Your task to perform on an android device: Search for usb-c to usb-a on amazon.com, select the first entry, and add it to the cart. Image 0: 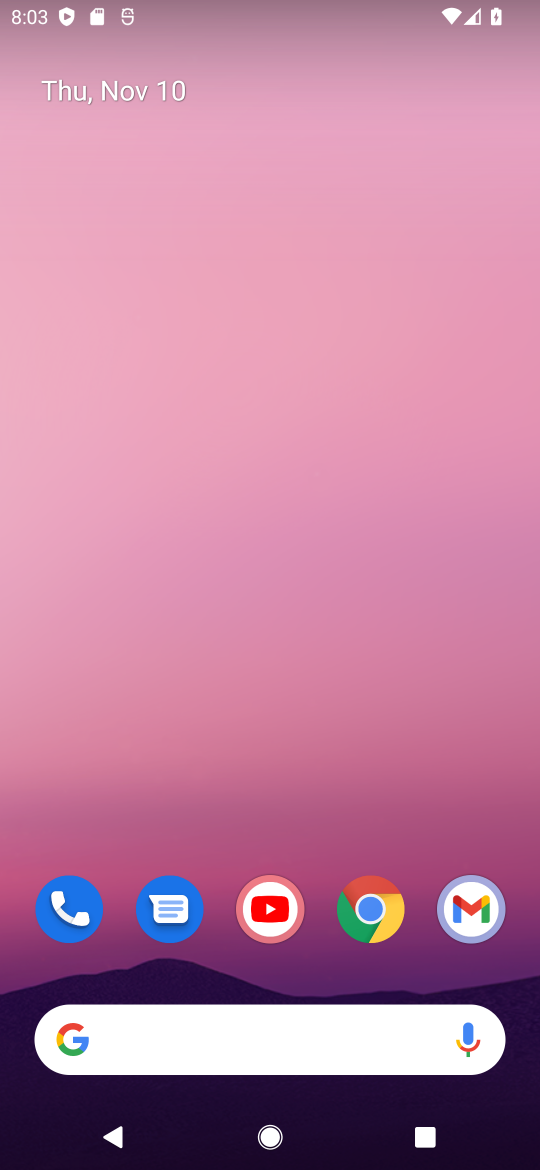
Step 0: drag from (202, 981) to (246, 131)
Your task to perform on an android device: Search for usb-c to usb-a on amazon.com, select the first entry, and add it to the cart. Image 1: 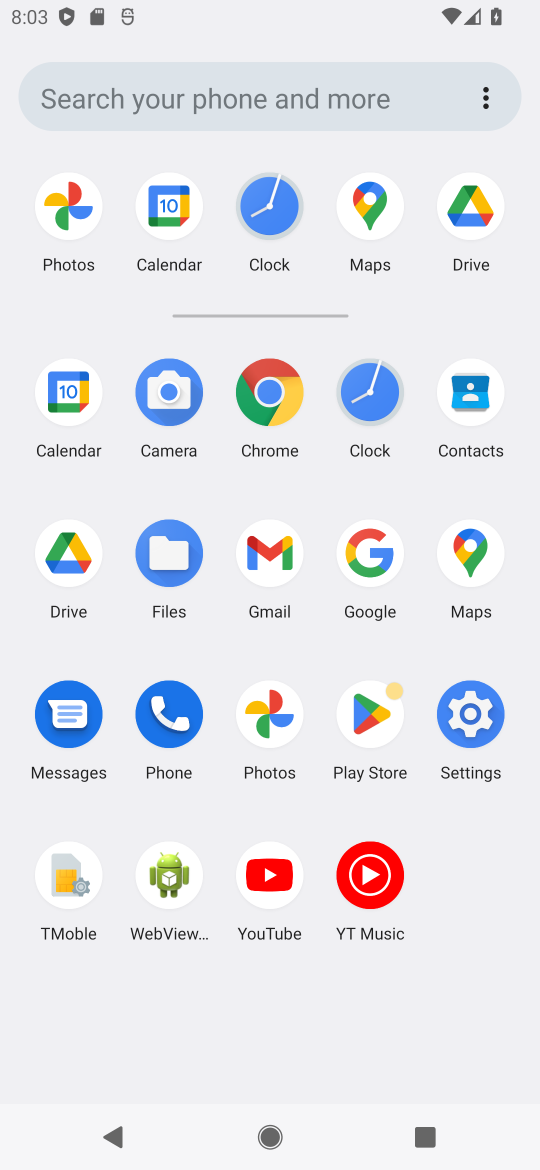
Step 1: click (375, 548)
Your task to perform on an android device: Search for usb-c to usb-a on amazon.com, select the first entry, and add it to the cart. Image 2: 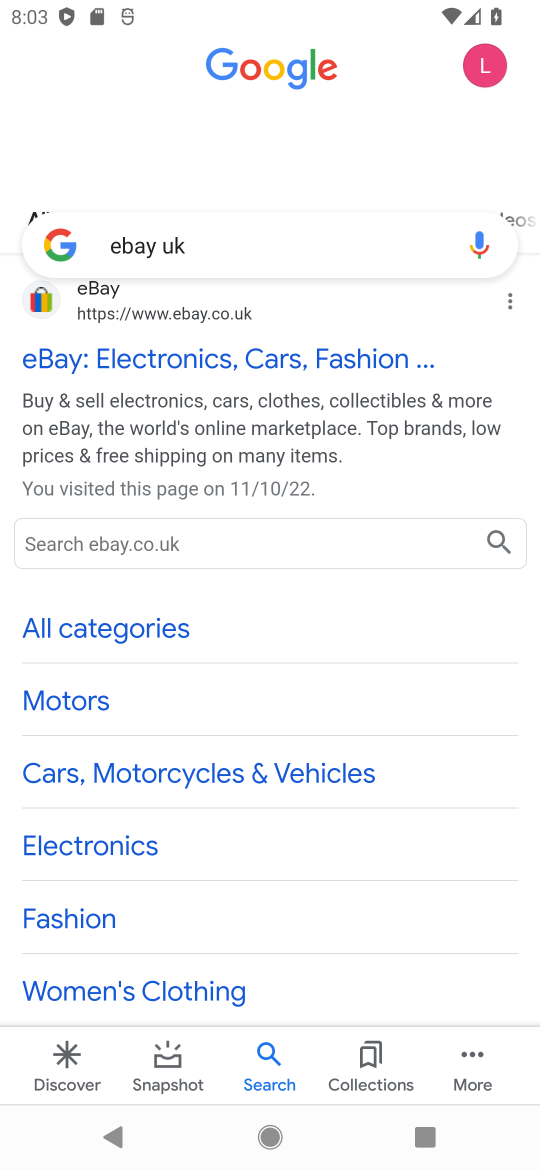
Step 2: click (282, 244)
Your task to perform on an android device: Search for usb-c to usb-a on amazon.com, select the first entry, and add it to the cart. Image 3: 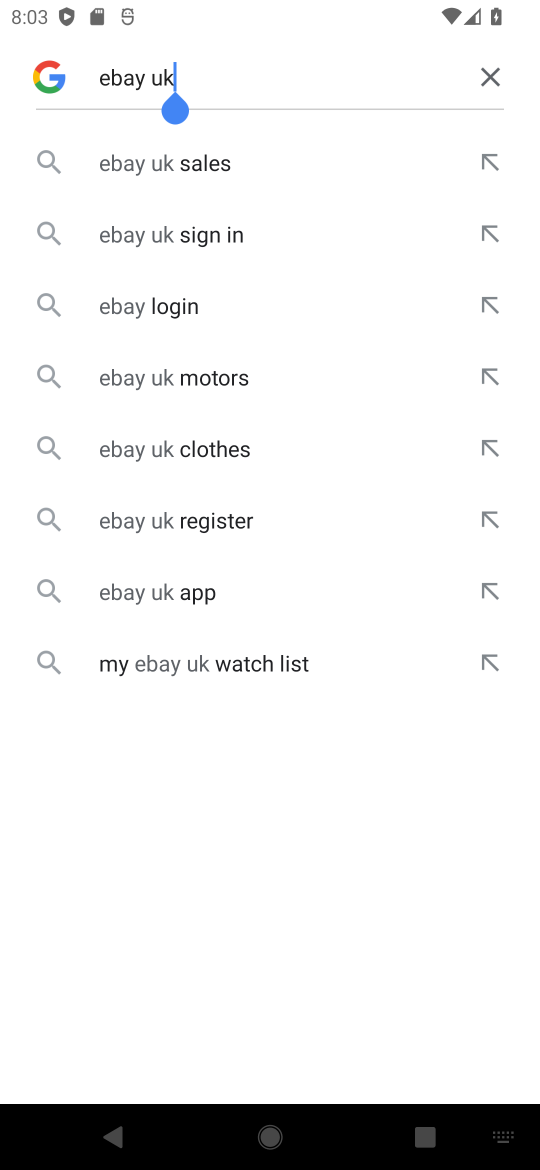
Step 3: click (486, 69)
Your task to perform on an android device: Search for usb-c to usb-a on amazon.com, select the first entry, and add it to the cart. Image 4: 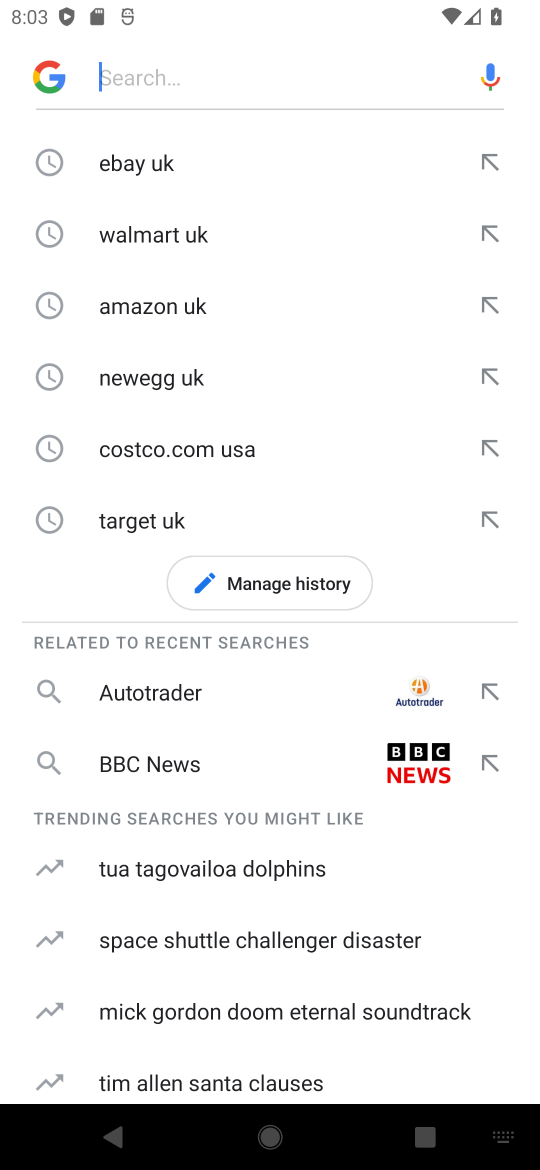
Step 4: click (211, 67)
Your task to perform on an android device: Search for usb-c to usb-a on amazon.com, select the first entry, and add it to the cart. Image 5: 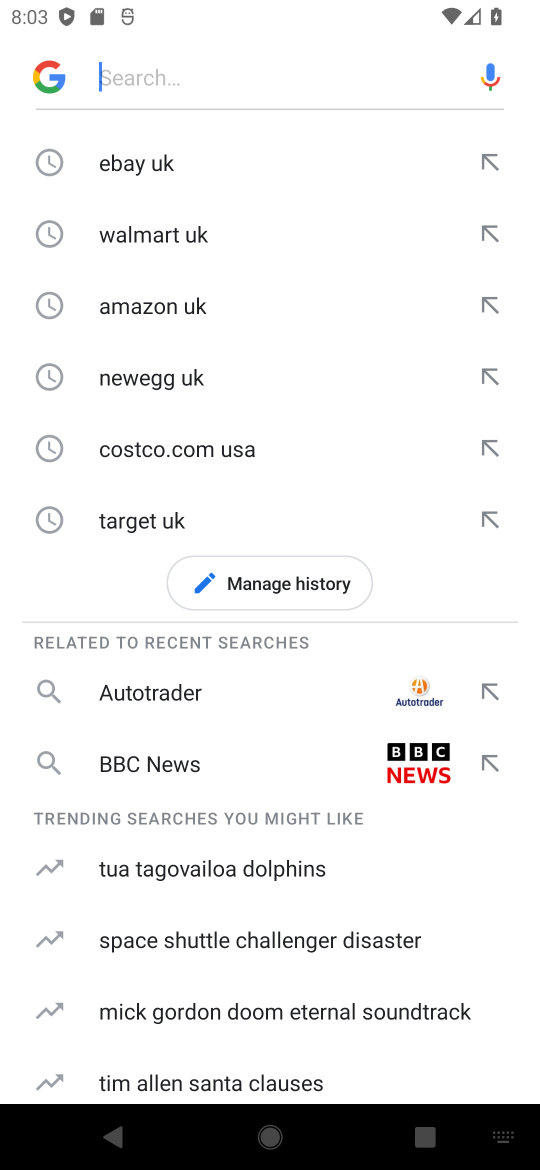
Step 5: type "amazon "
Your task to perform on an android device: Search for usb-c to usb-a on amazon.com, select the first entry, and add it to the cart. Image 6: 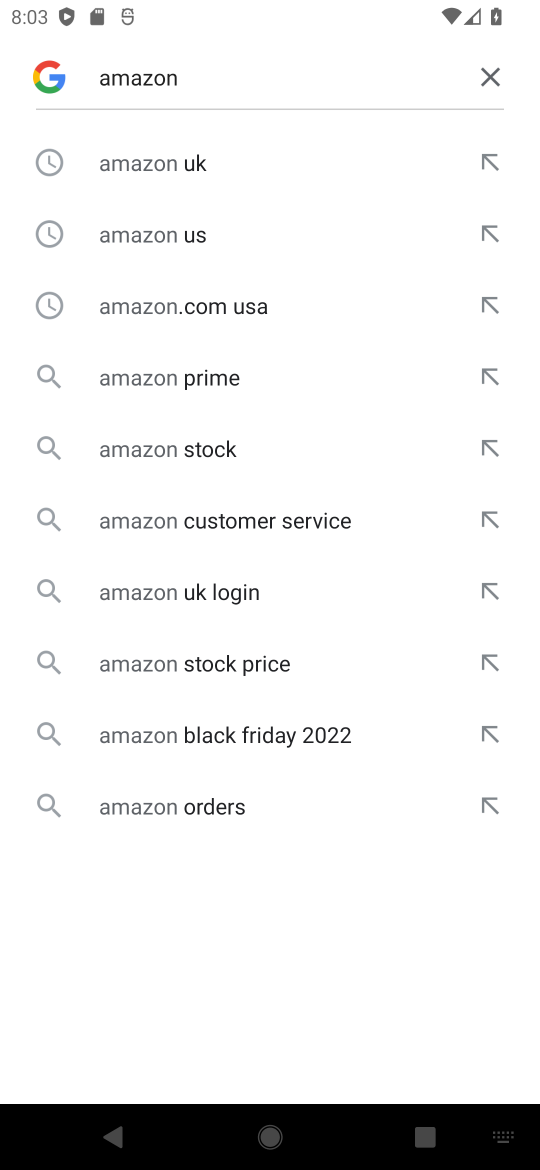
Step 6: click (174, 160)
Your task to perform on an android device: Search for usb-c to usb-a on amazon.com, select the first entry, and add it to the cart. Image 7: 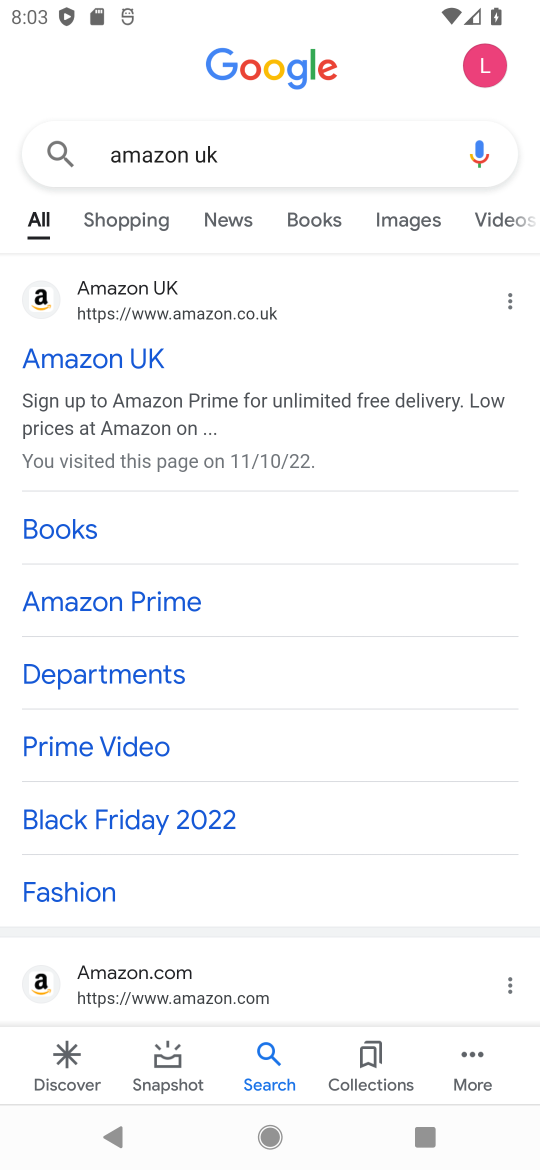
Step 7: click (44, 284)
Your task to perform on an android device: Search for usb-c to usb-a on amazon.com, select the first entry, and add it to the cart. Image 8: 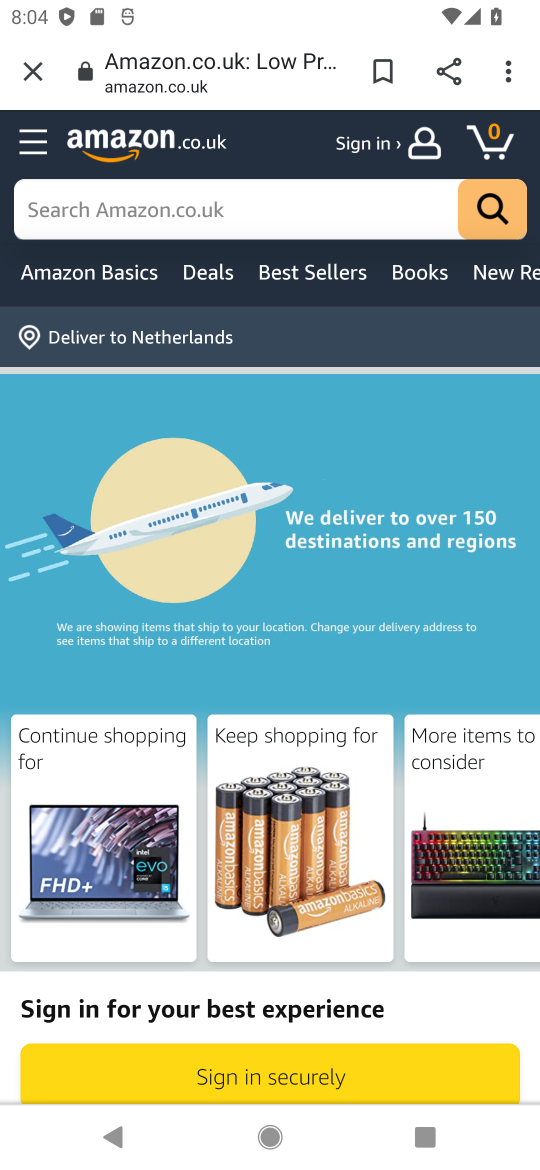
Step 8: click (335, 207)
Your task to perform on an android device: Search for usb-c to usb-a on amazon.com, select the first entry, and add it to the cart. Image 9: 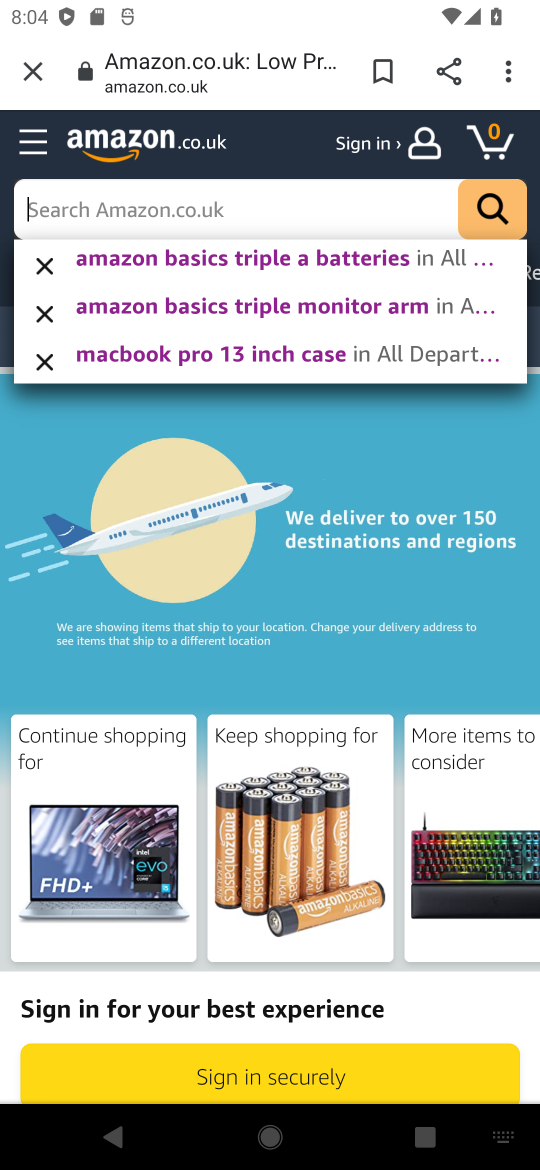
Step 9: type "usb-c to usb-a  "
Your task to perform on an android device: Search for usb-c to usb-a on amazon.com, select the first entry, and add it to the cart. Image 10: 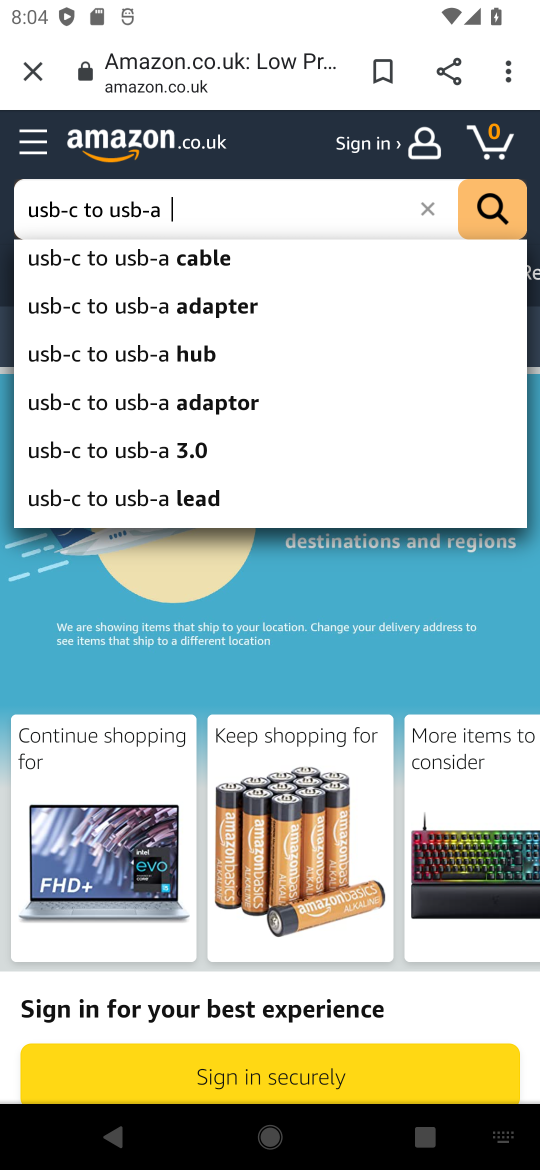
Step 10: click (162, 262)
Your task to perform on an android device: Search for usb-c to usb-a on amazon.com, select the first entry, and add it to the cart. Image 11: 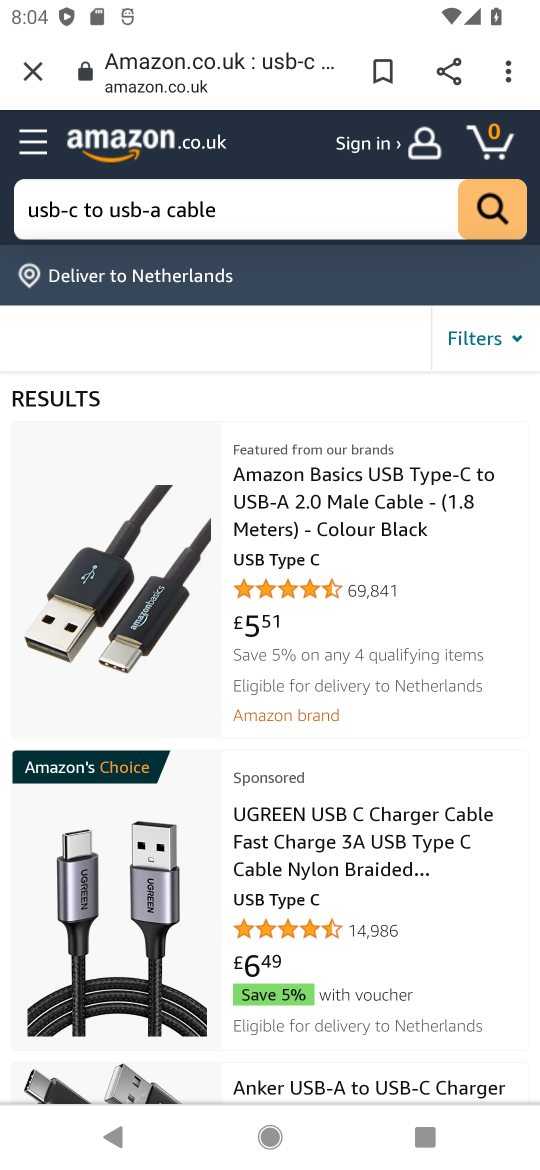
Step 11: click (357, 487)
Your task to perform on an android device: Search for usb-c to usb-a on amazon.com, select the first entry, and add it to the cart. Image 12: 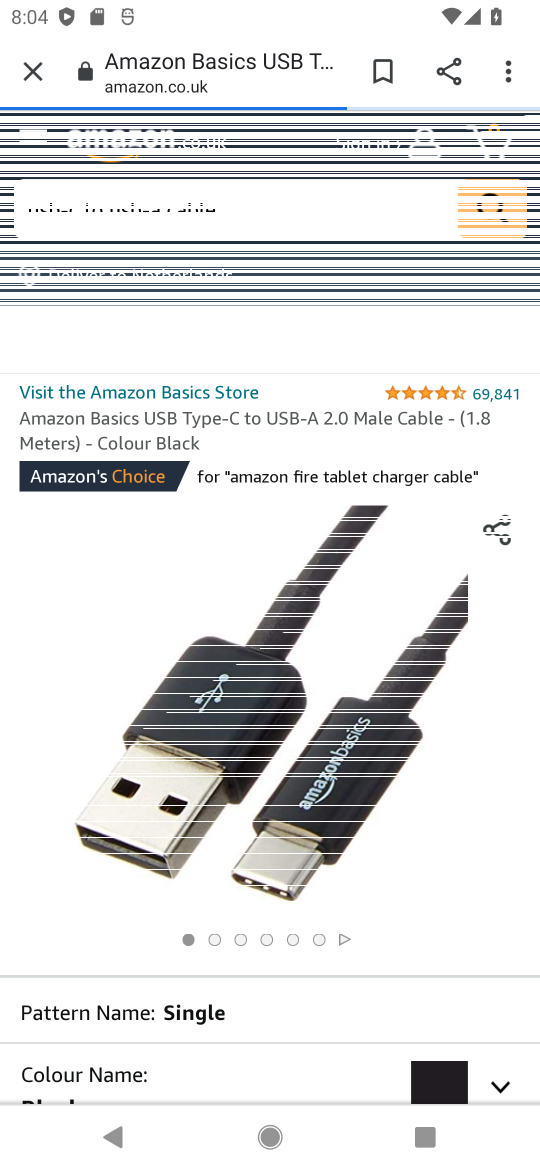
Step 12: drag from (267, 975) to (279, 292)
Your task to perform on an android device: Search for usb-c to usb-a on amazon.com, select the first entry, and add it to the cart. Image 13: 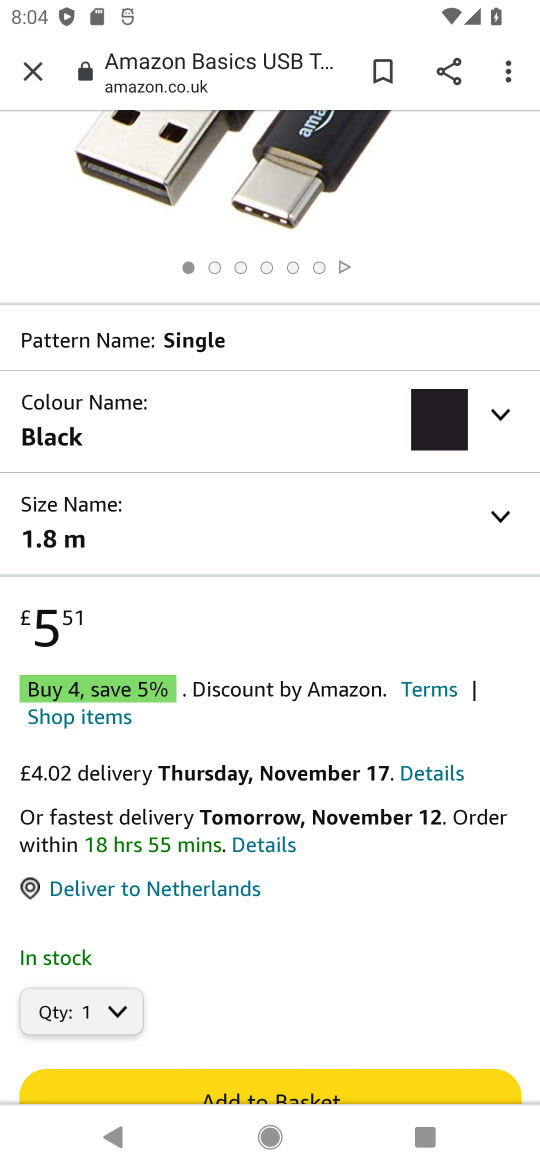
Step 13: drag from (233, 1021) to (264, 395)
Your task to perform on an android device: Search for usb-c to usb-a on amazon.com, select the first entry, and add it to the cart. Image 14: 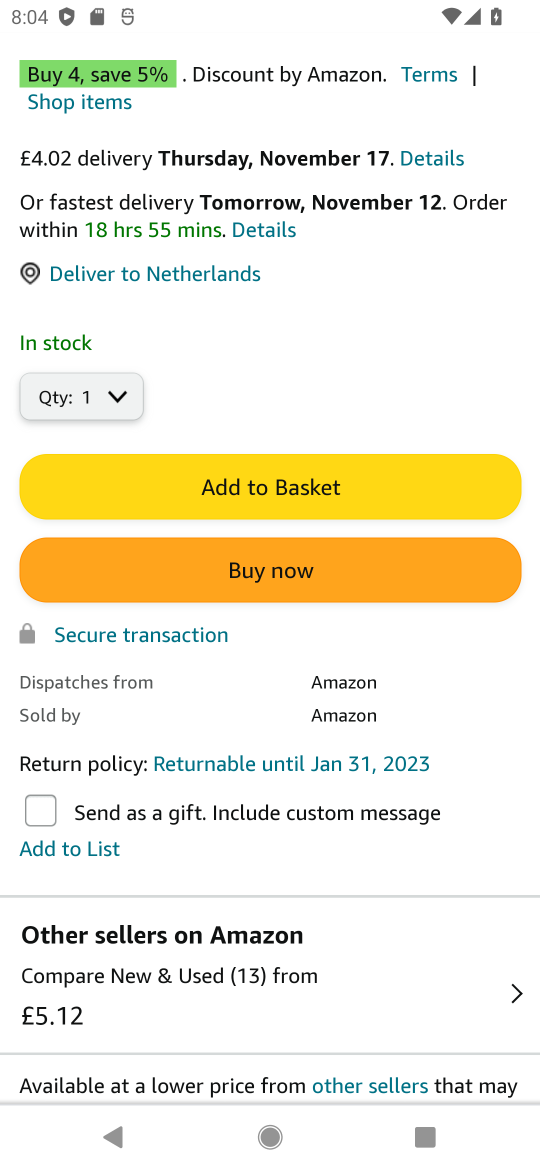
Step 14: click (281, 483)
Your task to perform on an android device: Search for usb-c to usb-a on amazon.com, select the first entry, and add it to the cart. Image 15: 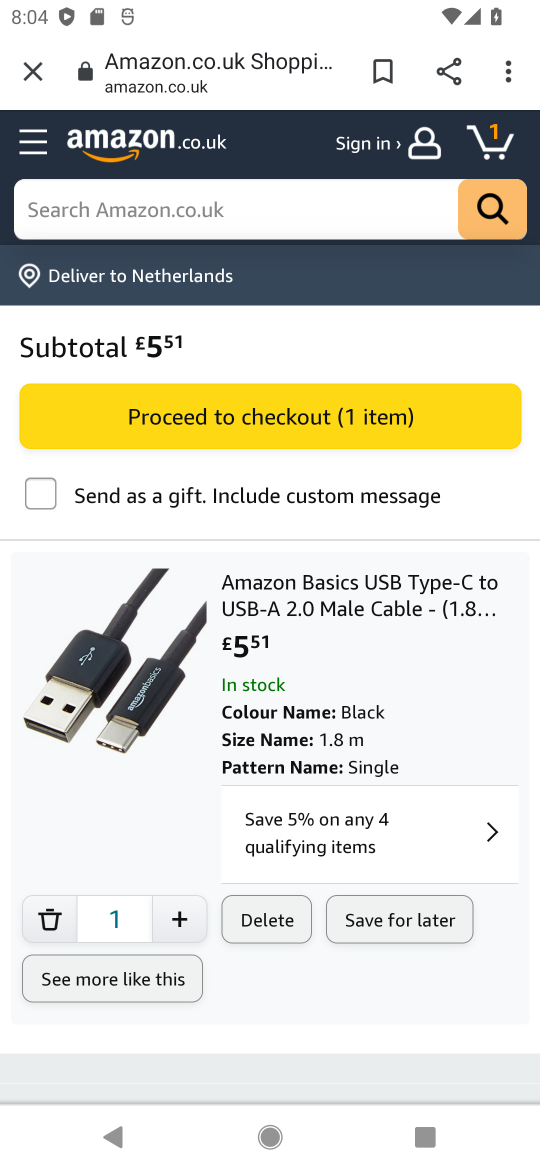
Step 15: task complete